Your task to perform on an android device: turn on javascript in the chrome app Image 0: 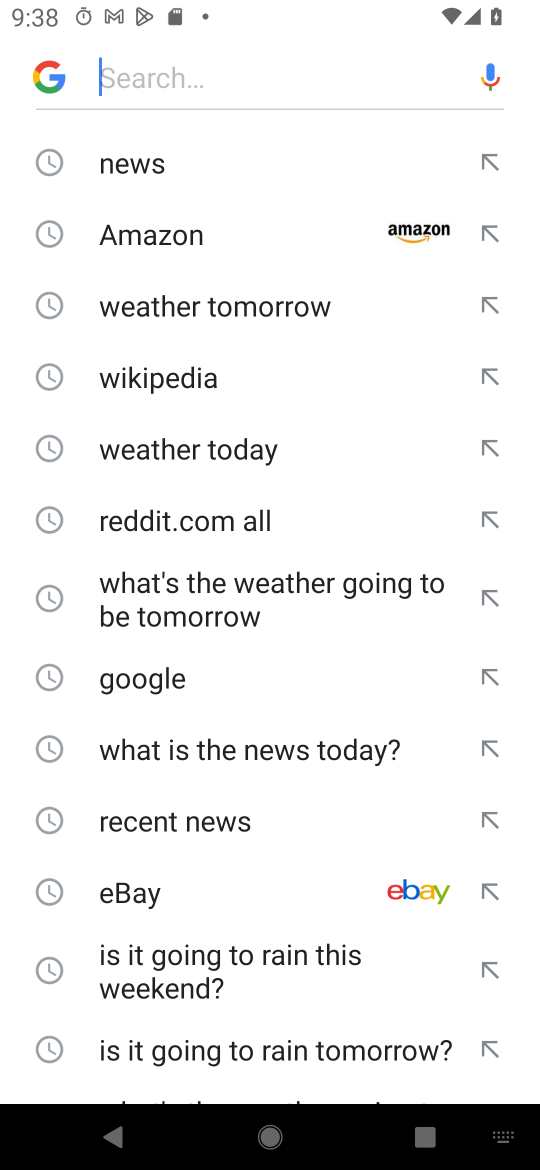
Step 0: press home button
Your task to perform on an android device: turn on javascript in the chrome app Image 1: 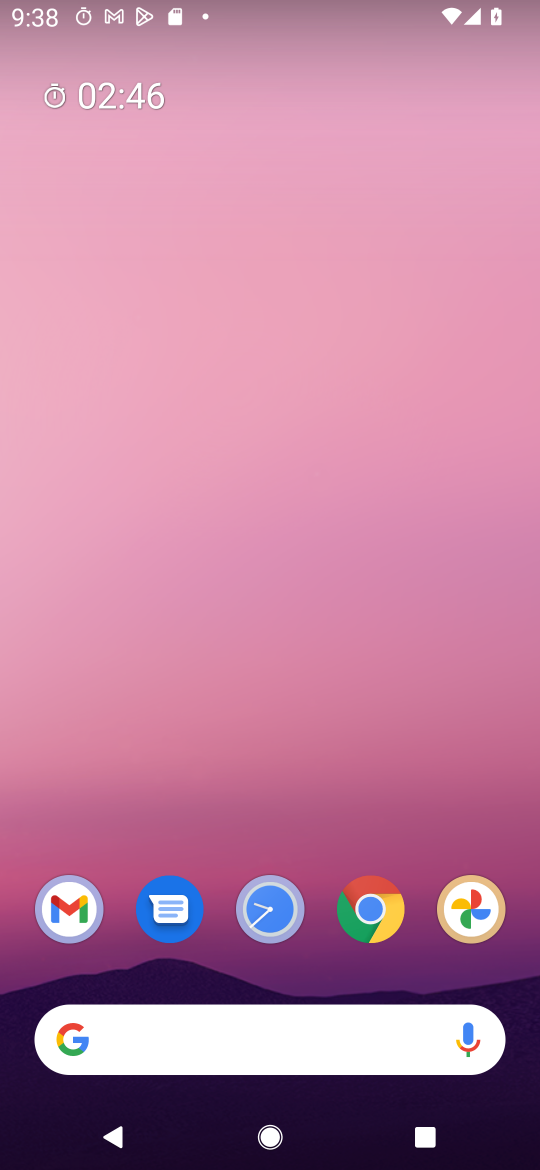
Step 1: drag from (427, 819) to (431, 392)
Your task to perform on an android device: turn on javascript in the chrome app Image 2: 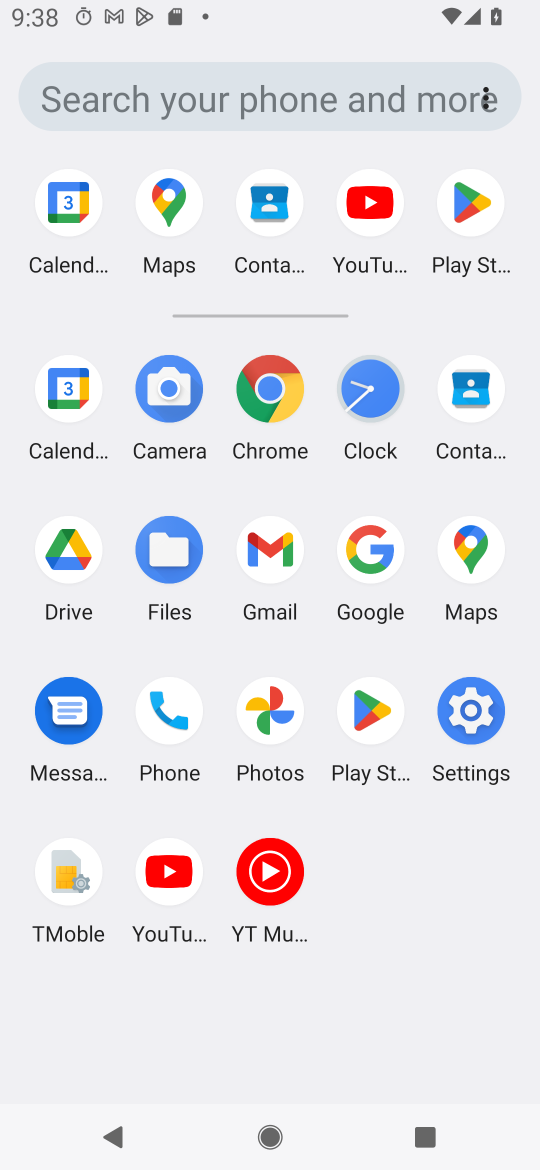
Step 2: click (276, 397)
Your task to perform on an android device: turn on javascript in the chrome app Image 3: 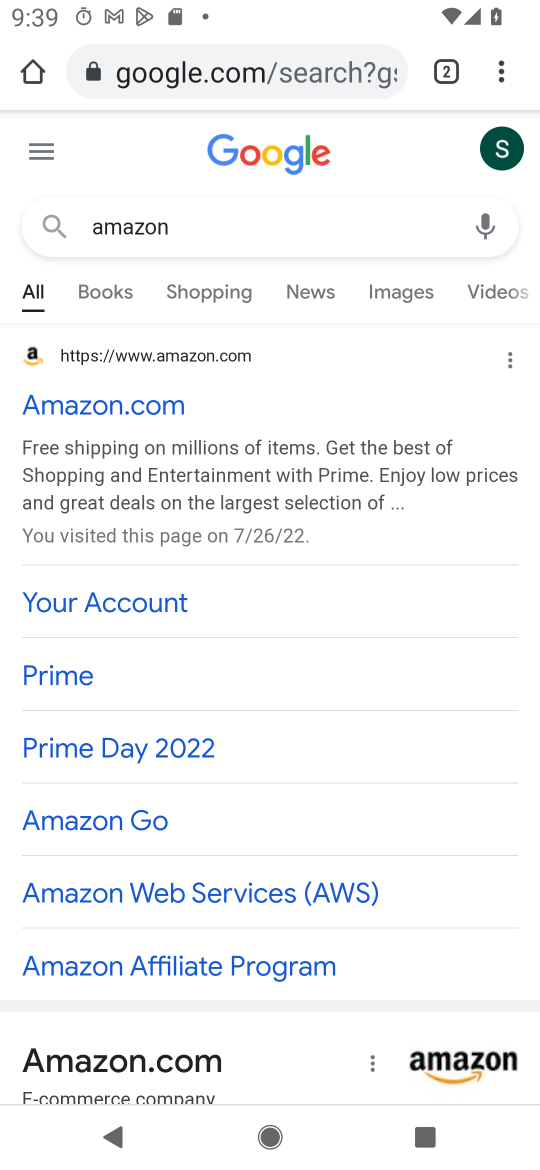
Step 3: click (498, 70)
Your task to perform on an android device: turn on javascript in the chrome app Image 4: 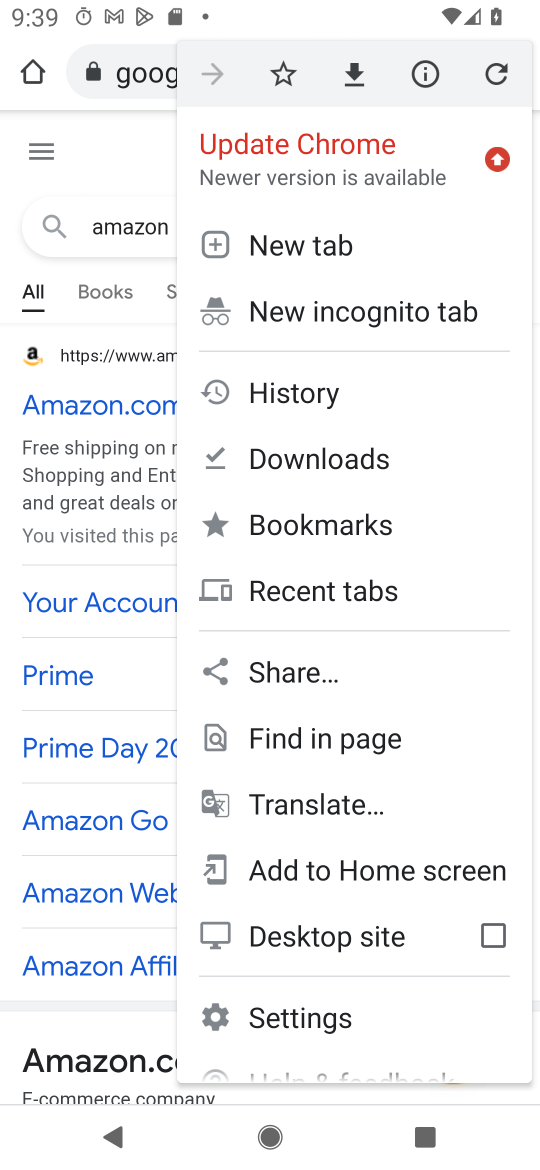
Step 4: click (335, 1013)
Your task to perform on an android device: turn on javascript in the chrome app Image 5: 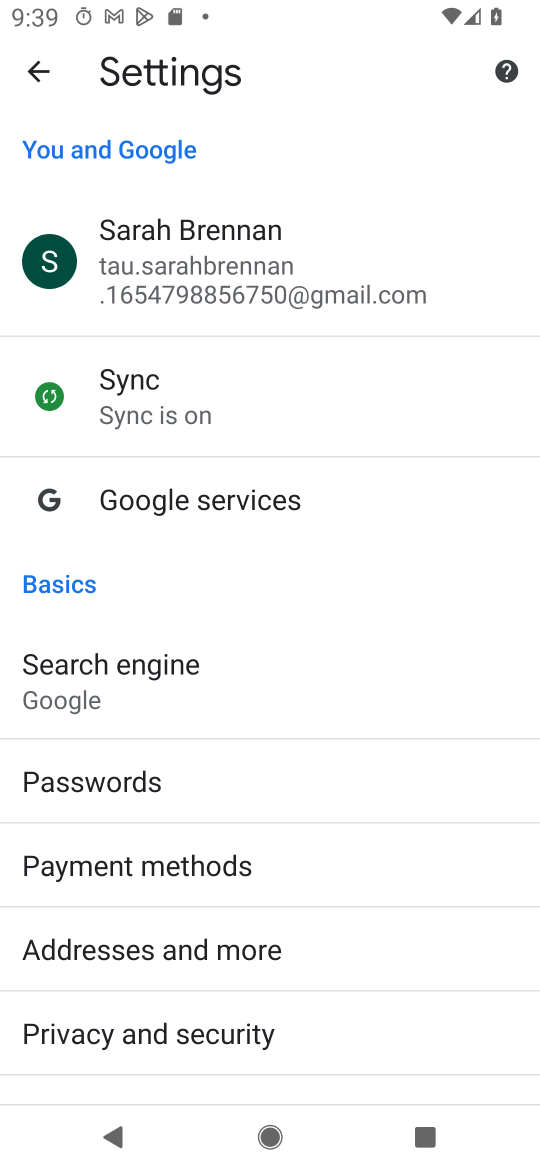
Step 5: drag from (400, 917) to (382, 719)
Your task to perform on an android device: turn on javascript in the chrome app Image 6: 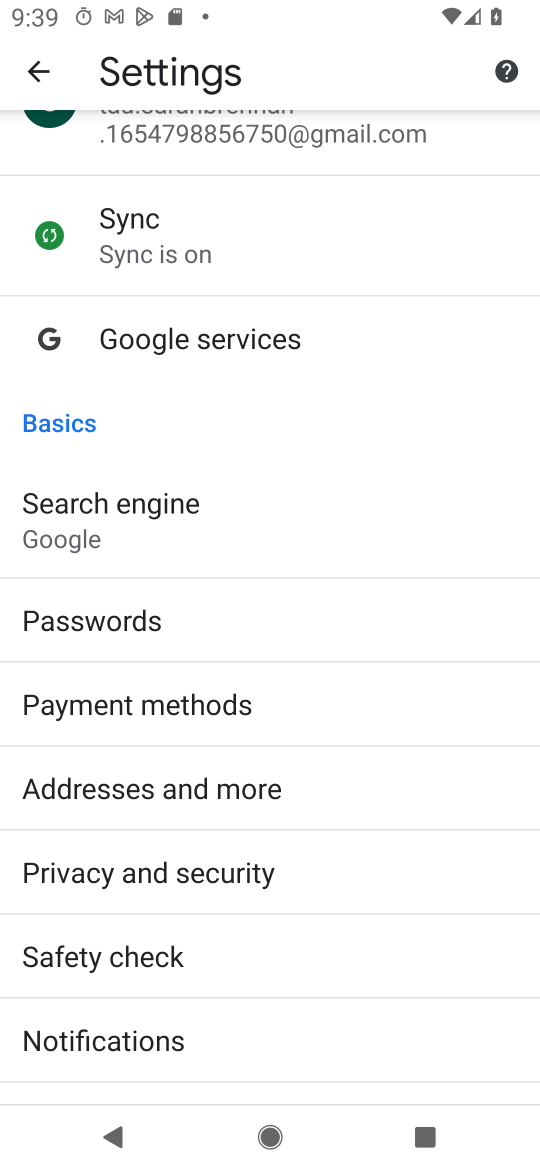
Step 6: drag from (410, 961) to (421, 778)
Your task to perform on an android device: turn on javascript in the chrome app Image 7: 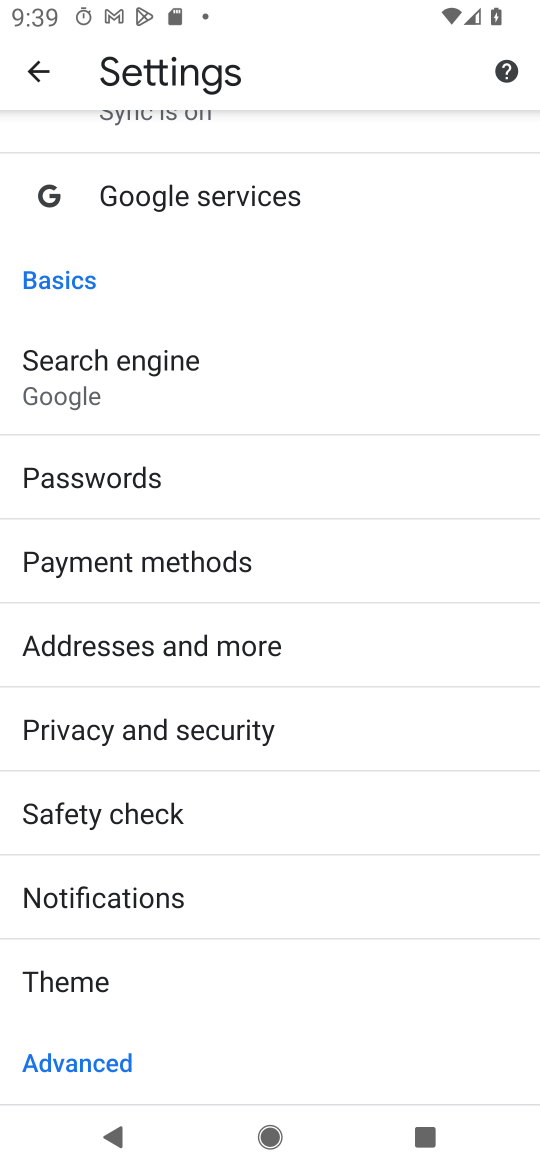
Step 7: drag from (424, 992) to (414, 773)
Your task to perform on an android device: turn on javascript in the chrome app Image 8: 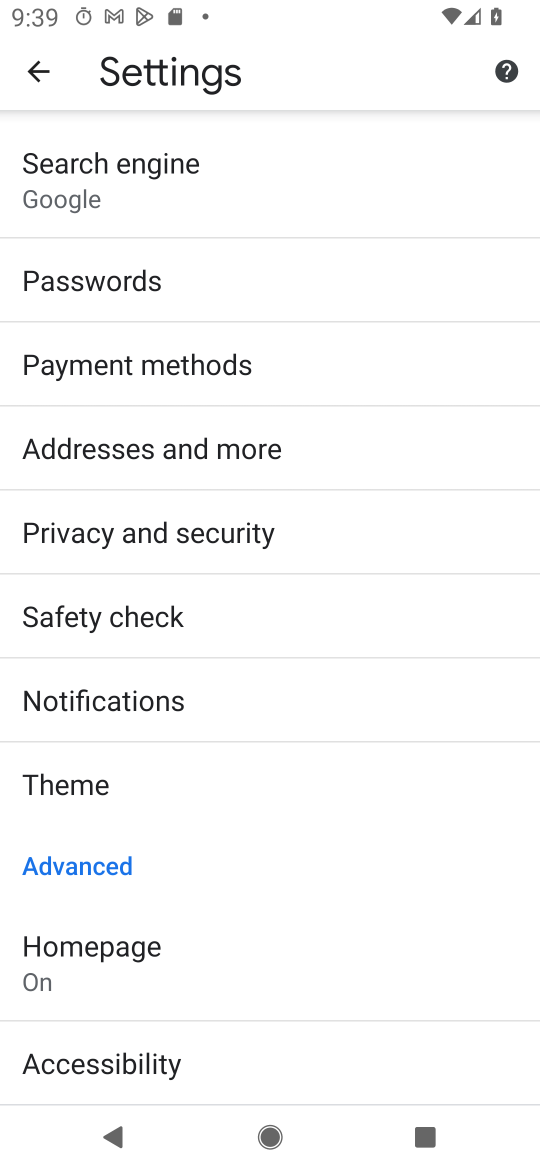
Step 8: drag from (423, 1015) to (430, 786)
Your task to perform on an android device: turn on javascript in the chrome app Image 9: 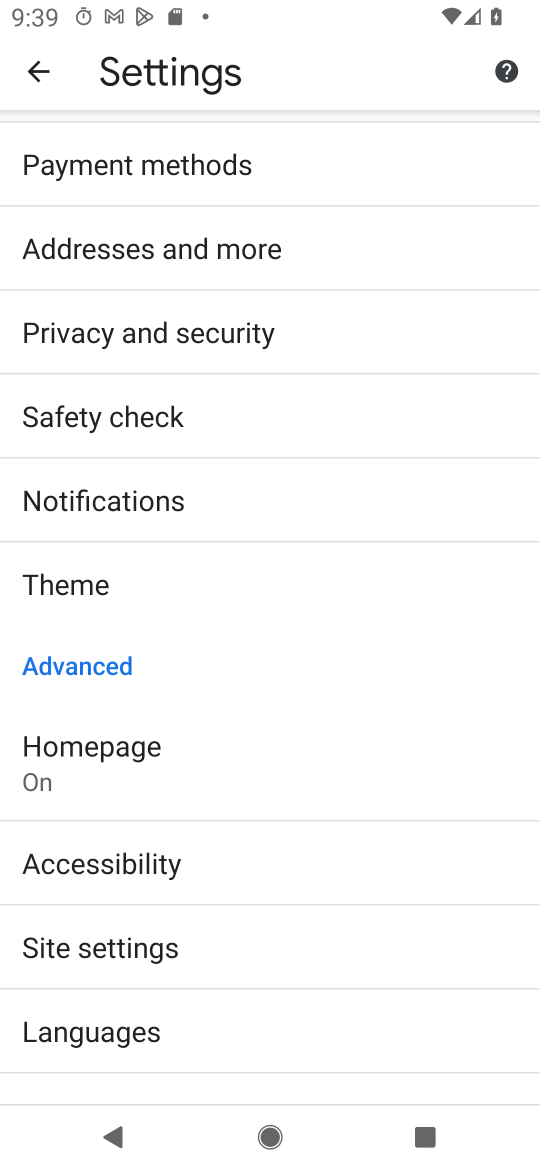
Step 9: click (421, 937)
Your task to perform on an android device: turn on javascript in the chrome app Image 10: 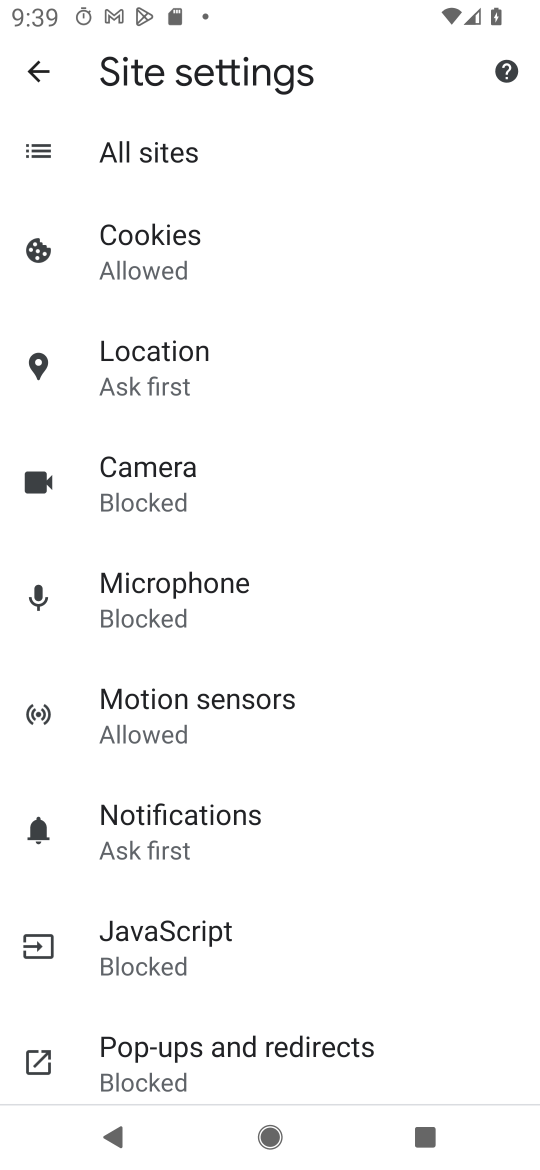
Step 10: click (227, 957)
Your task to perform on an android device: turn on javascript in the chrome app Image 11: 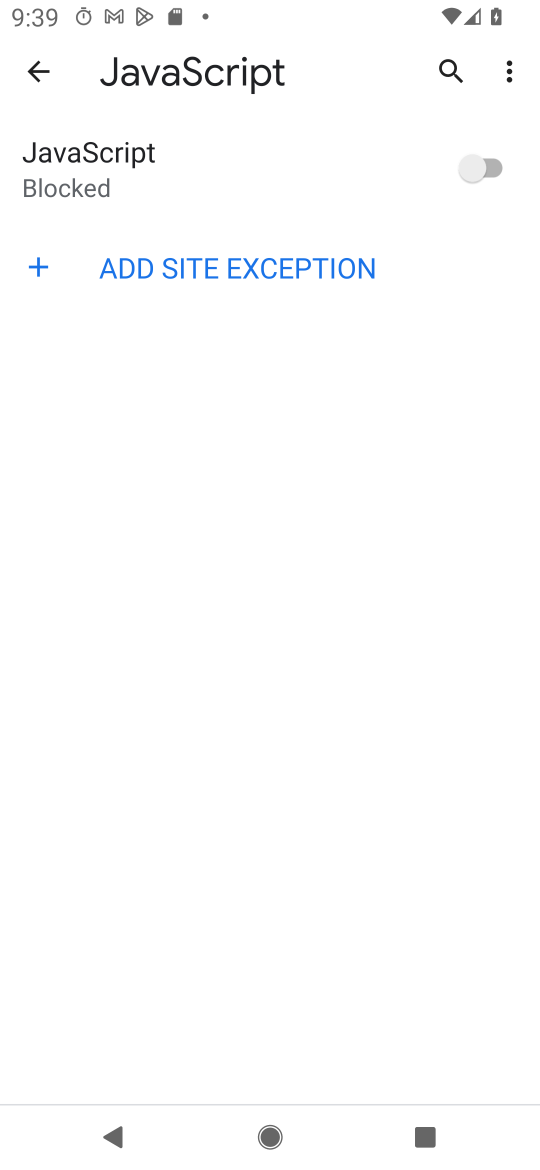
Step 11: click (470, 166)
Your task to perform on an android device: turn on javascript in the chrome app Image 12: 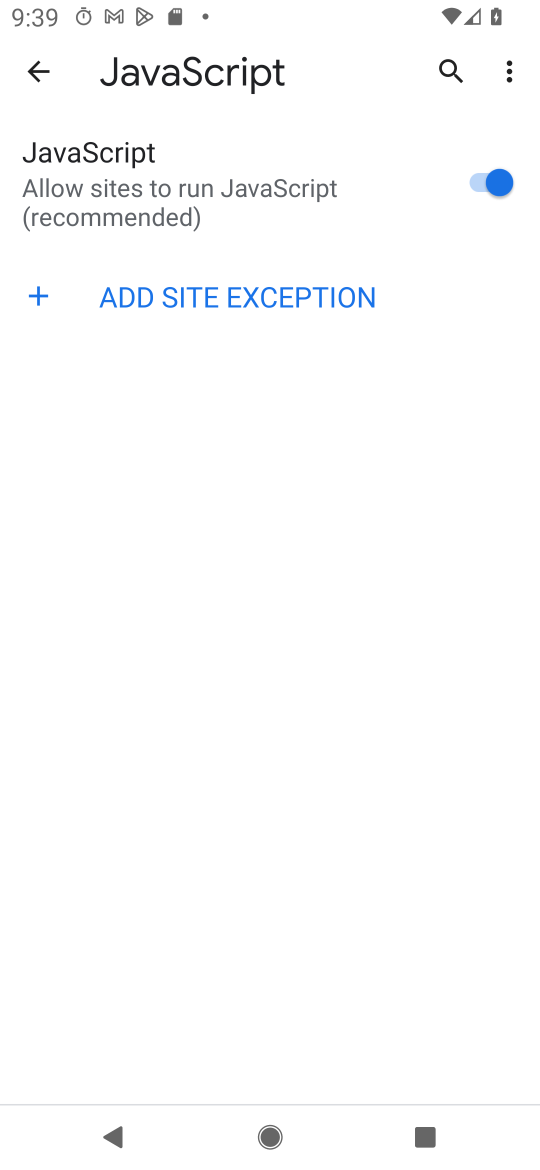
Step 12: task complete